Your task to perform on an android device: show emergency info Image 0: 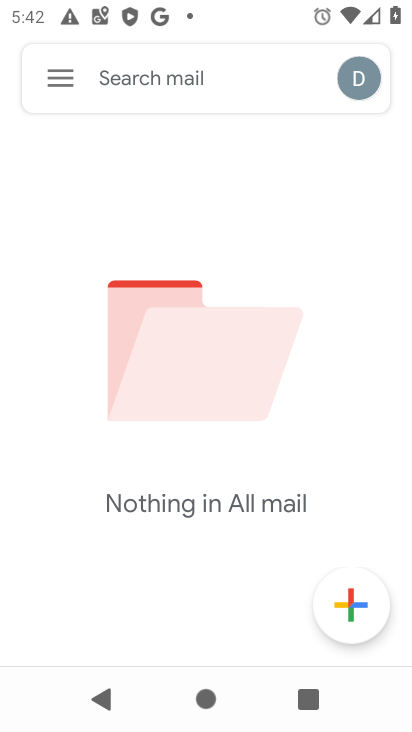
Step 0: press home button
Your task to perform on an android device: show emergency info Image 1: 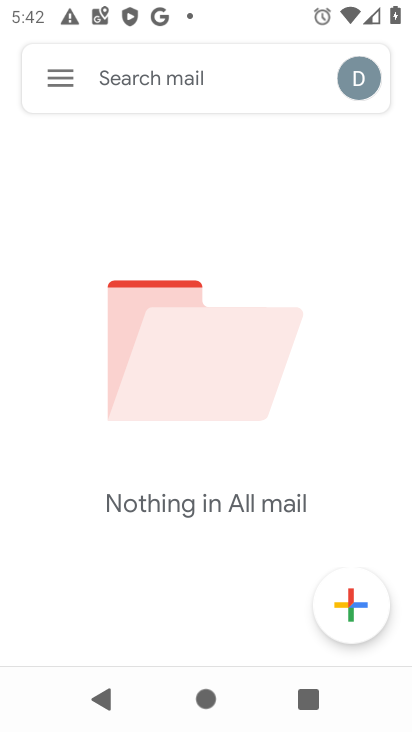
Step 1: press home button
Your task to perform on an android device: show emergency info Image 2: 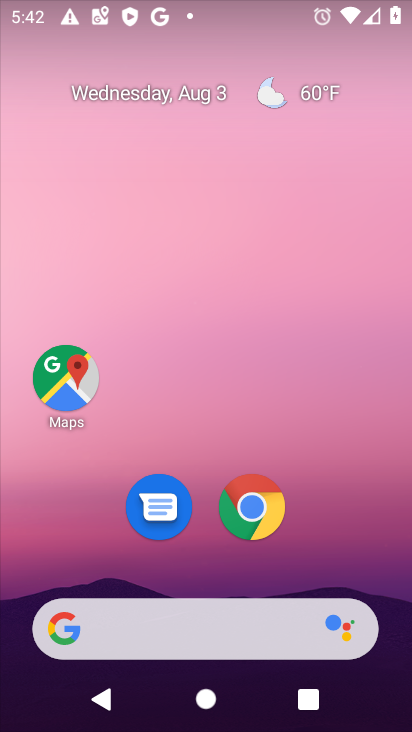
Step 2: drag from (362, 528) to (352, 132)
Your task to perform on an android device: show emergency info Image 3: 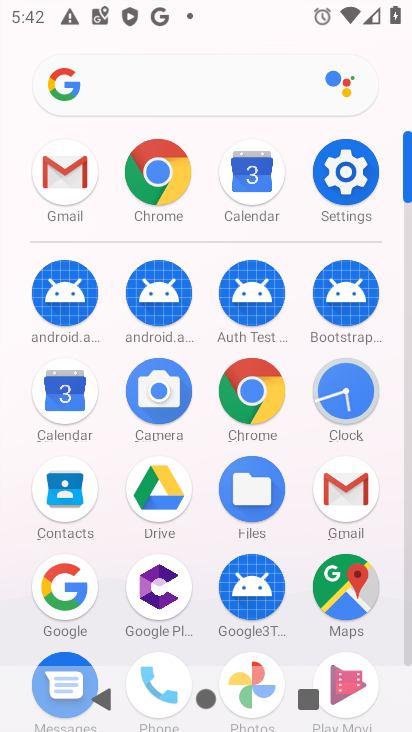
Step 3: click (355, 167)
Your task to perform on an android device: show emergency info Image 4: 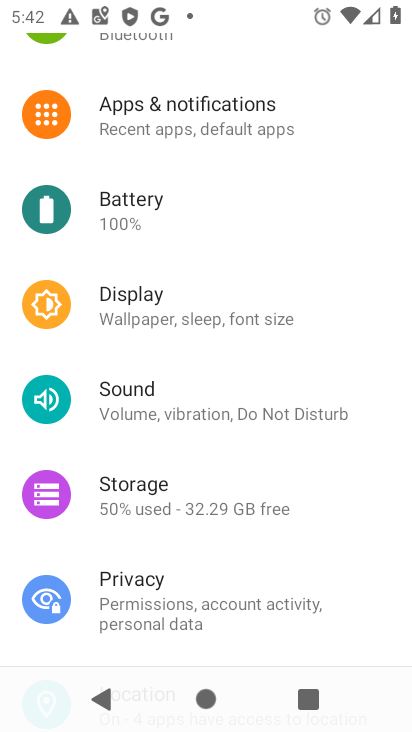
Step 4: drag from (312, 548) to (332, 119)
Your task to perform on an android device: show emergency info Image 5: 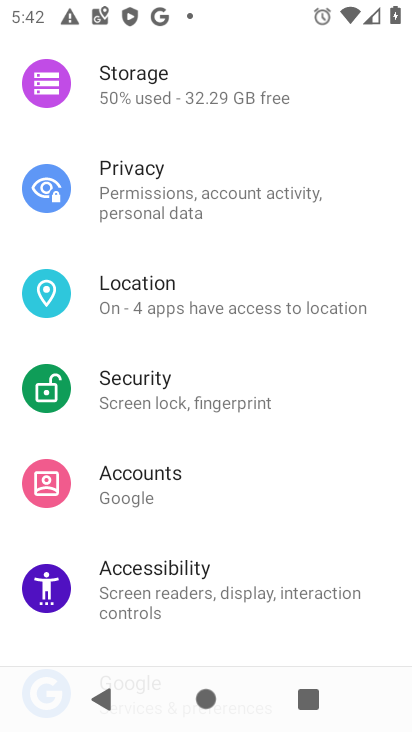
Step 5: drag from (265, 493) to (332, 24)
Your task to perform on an android device: show emergency info Image 6: 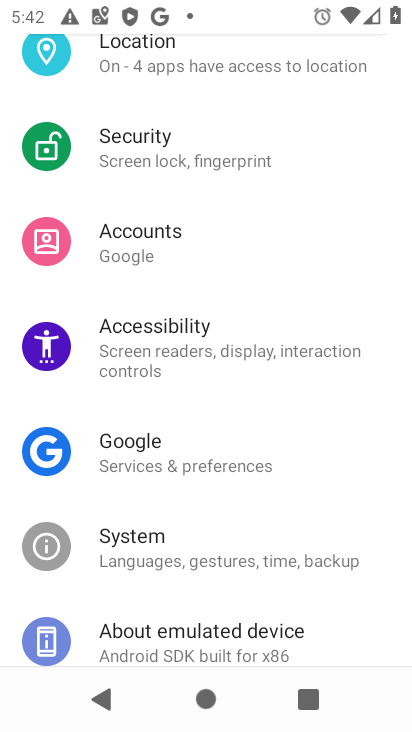
Step 6: click (220, 628)
Your task to perform on an android device: show emergency info Image 7: 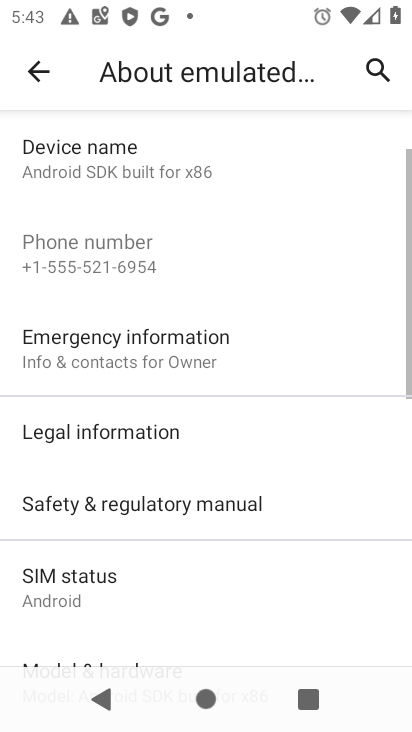
Step 7: click (174, 335)
Your task to perform on an android device: show emergency info Image 8: 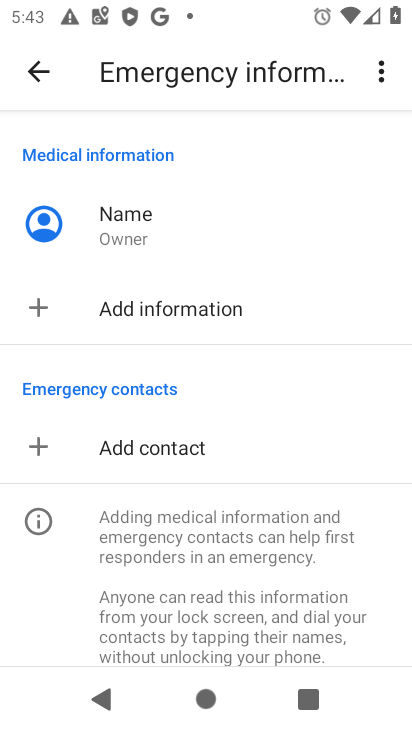
Step 8: task complete